Your task to perform on an android device: How do I get to the nearest Target? Image 0: 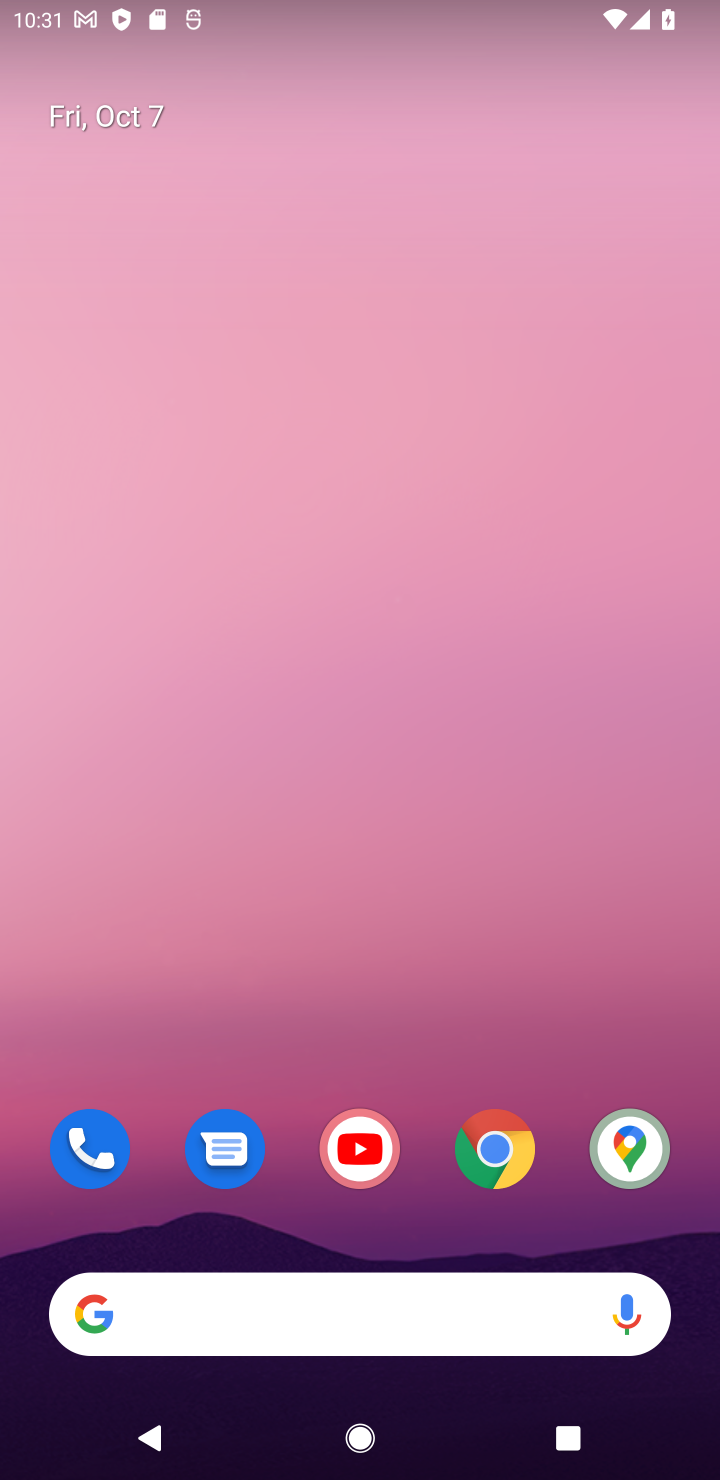
Step 0: click (353, 1324)
Your task to perform on an android device: How do I get to the nearest Target? Image 1: 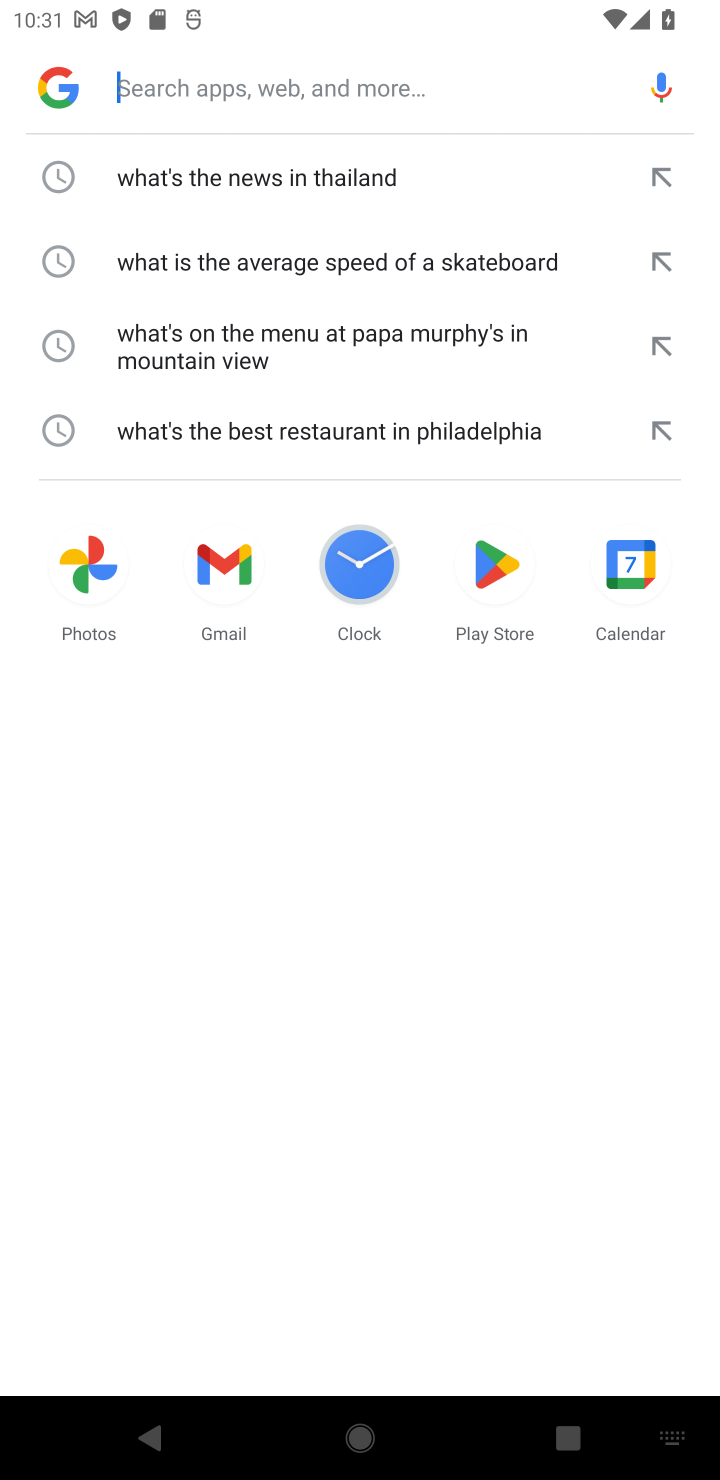
Step 1: type "How do I get to the nearest Target?"
Your task to perform on an android device: How do I get to the nearest Target? Image 2: 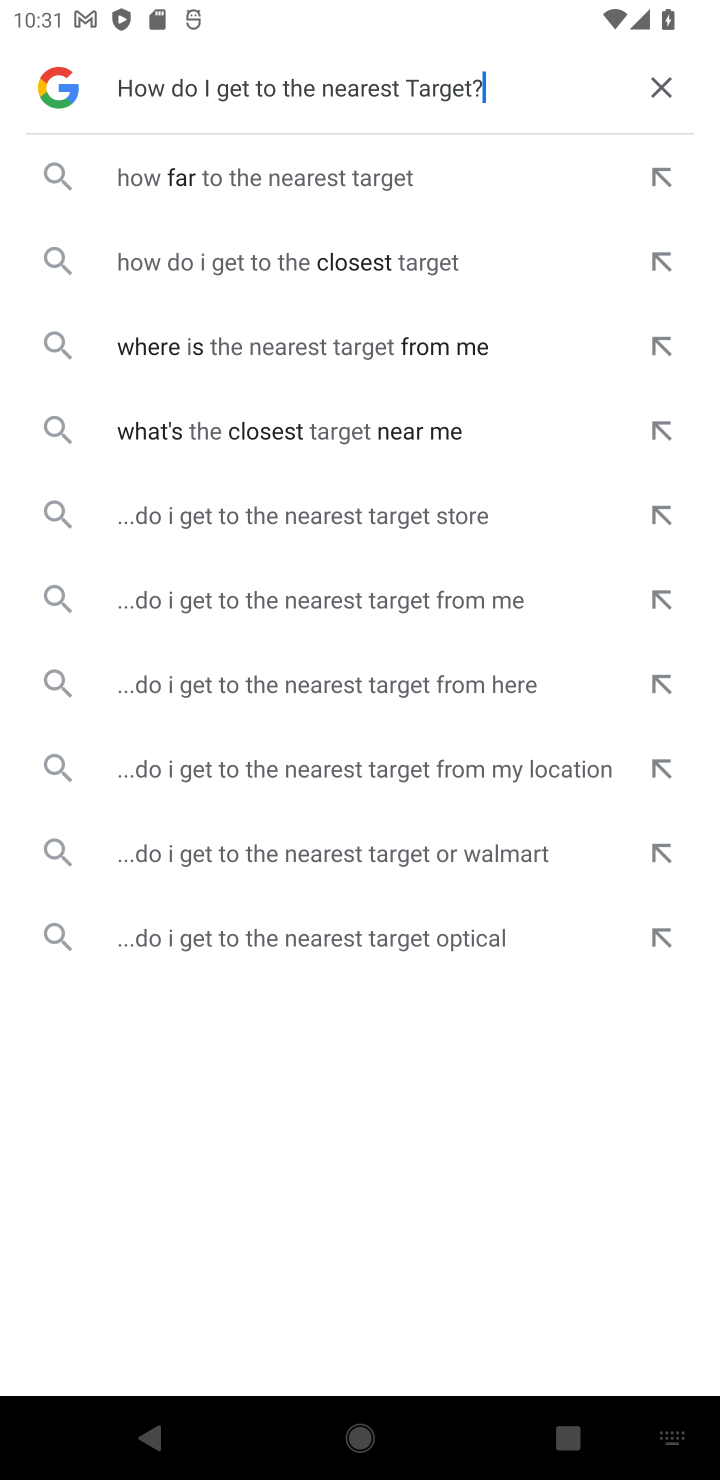
Step 2: click (211, 188)
Your task to perform on an android device: How do I get to the nearest Target? Image 3: 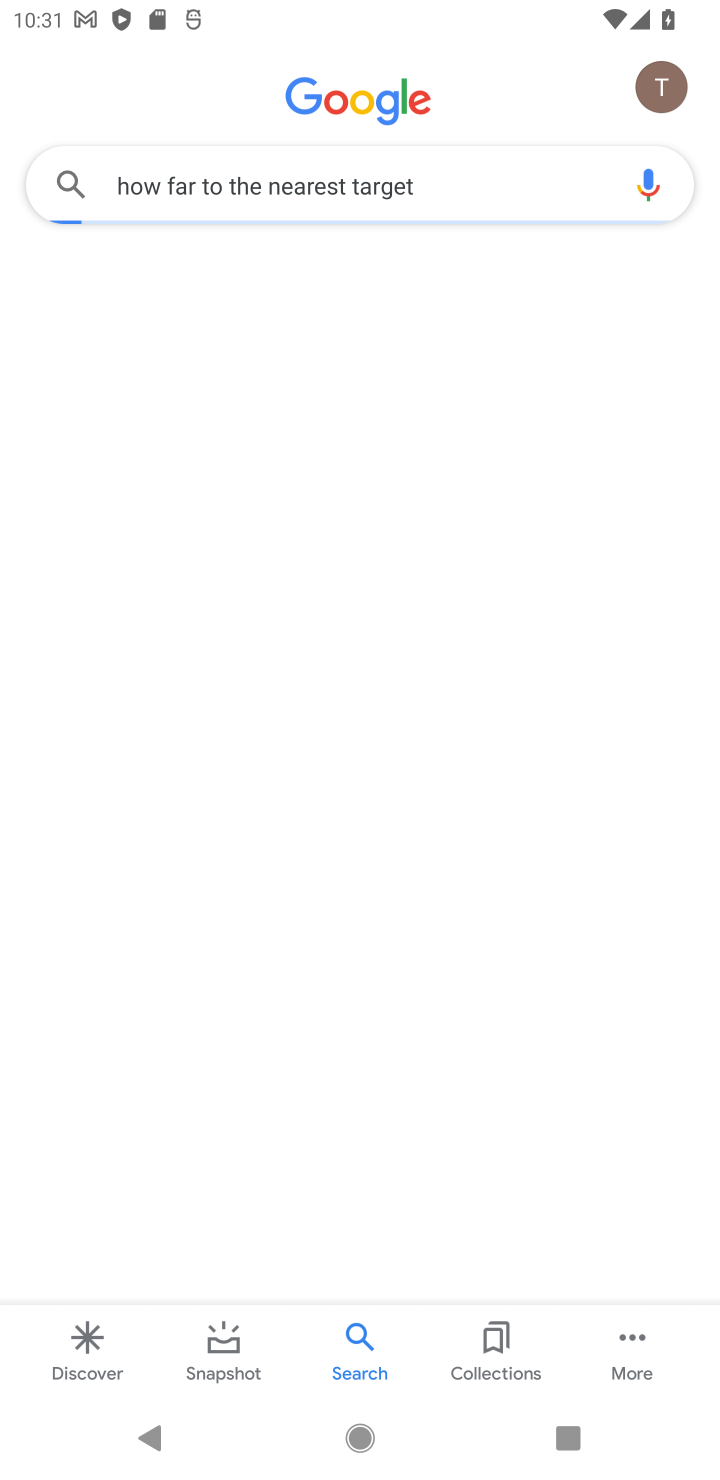
Step 3: task complete